Your task to perform on an android device: Go to location settings Image 0: 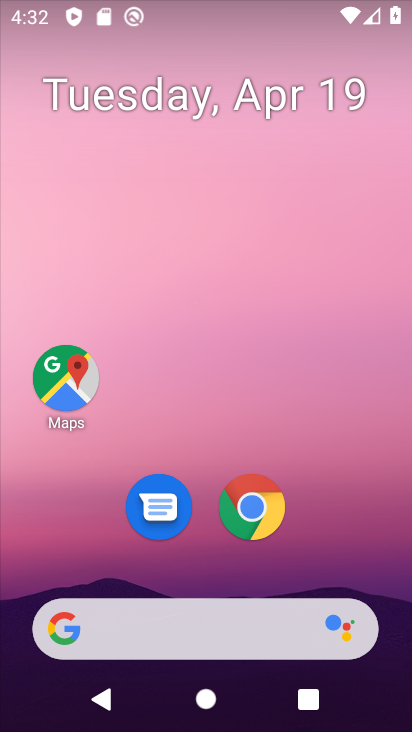
Step 0: drag from (337, 531) to (316, 49)
Your task to perform on an android device: Go to location settings Image 1: 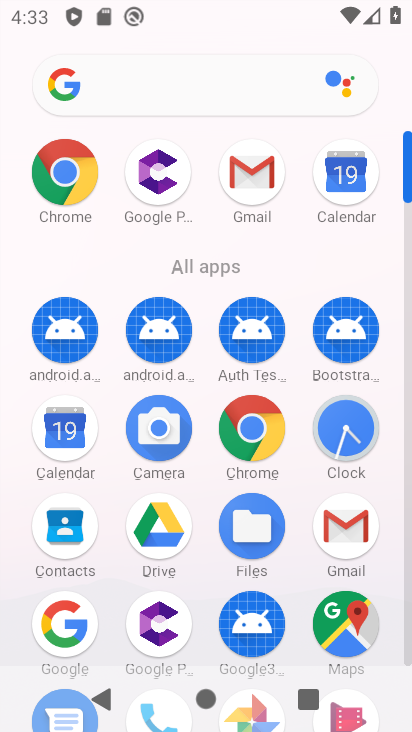
Step 1: drag from (188, 559) to (213, 218)
Your task to perform on an android device: Go to location settings Image 2: 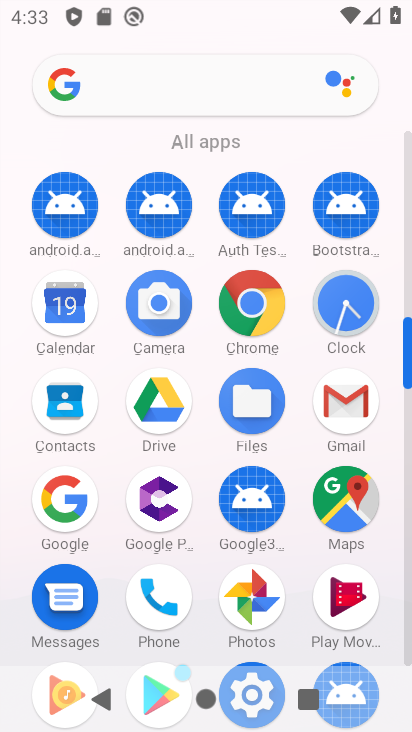
Step 2: drag from (294, 609) to (278, 285)
Your task to perform on an android device: Go to location settings Image 3: 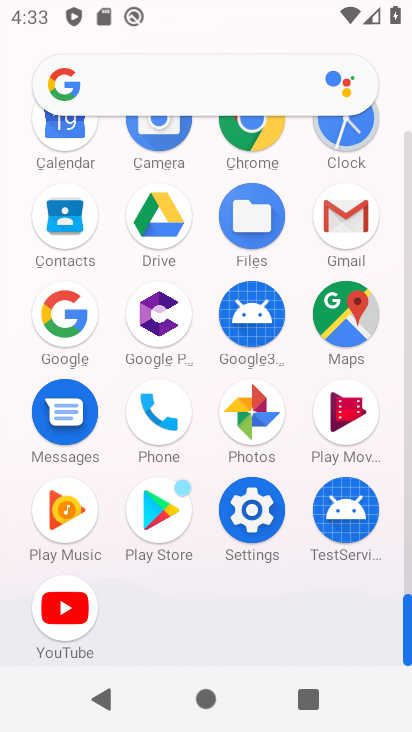
Step 3: click (252, 512)
Your task to perform on an android device: Go to location settings Image 4: 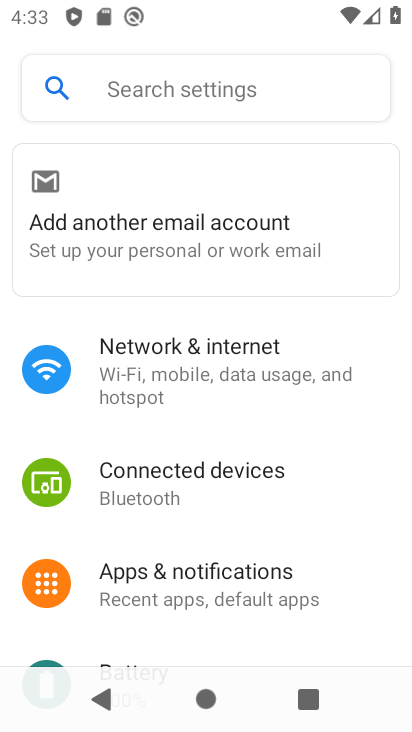
Step 4: drag from (223, 549) to (274, 216)
Your task to perform on an android device: Go to location settings Image 5: 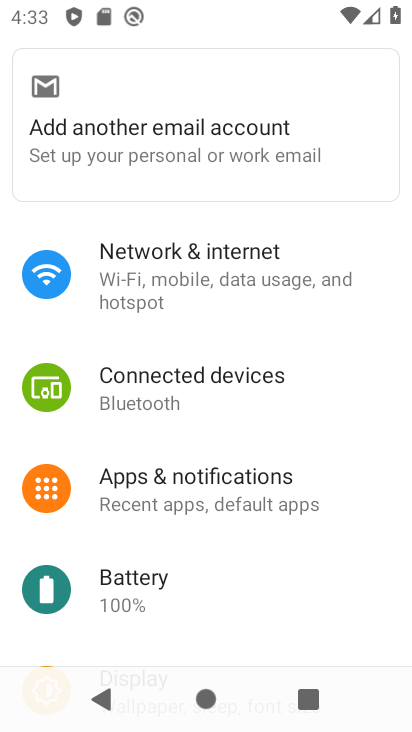
Step 5: click (264, 94)
Your task to perform on an android device: Go to location settings Image 6: 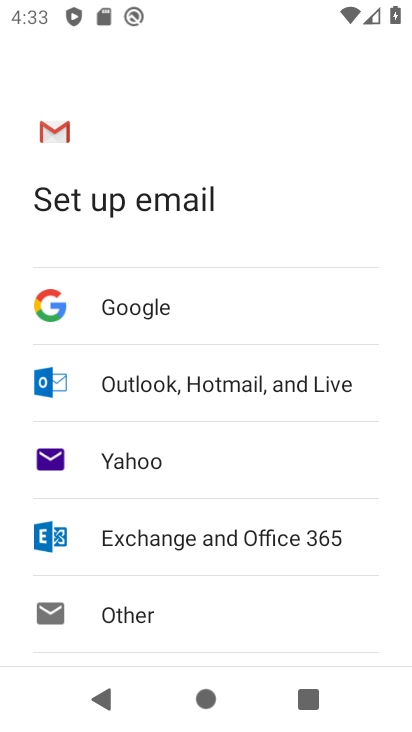
Step 6: drag from (273, 562) to (297, 166)
Your task to perform on an android device: Go to location settings Image 7: 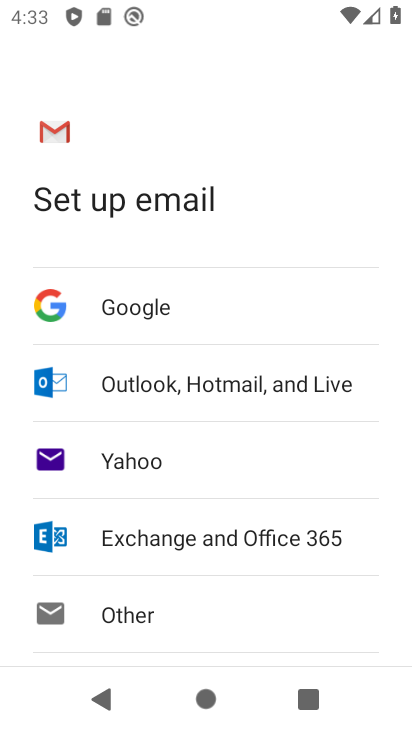
Step 7: press home button
Your task to perform on an android device: Go to location settings Image 8: 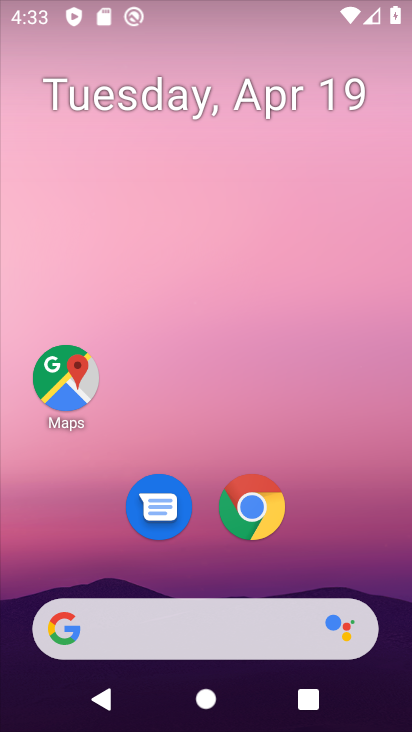
Step 8: drag from (289, 543) to (269, 33)
Your task to perform on an android device: Go to location settings Image 9: 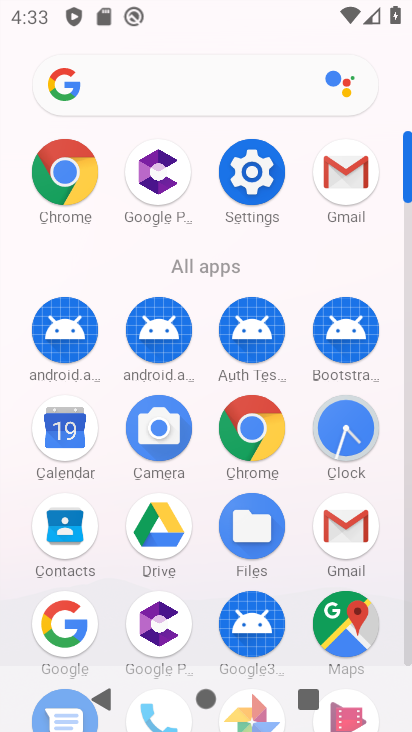
Step 9: click (253, 161)
Your task to perform on an android device: Go to location settings Image 10: 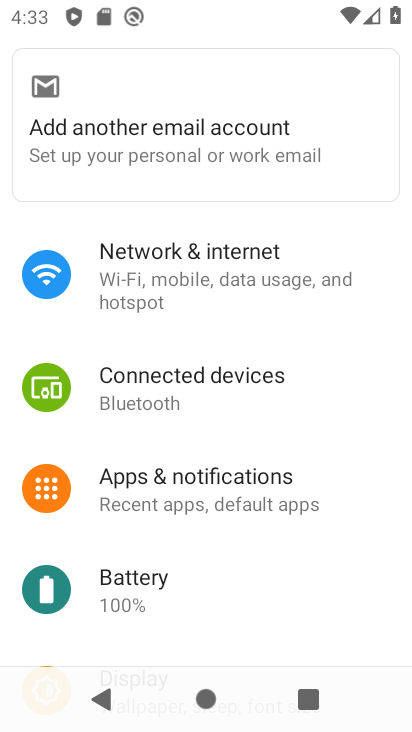
Step 10: drag from (204, 509) to (242, 116)
Your task to perform on an android device: Go to location settings Image 11: 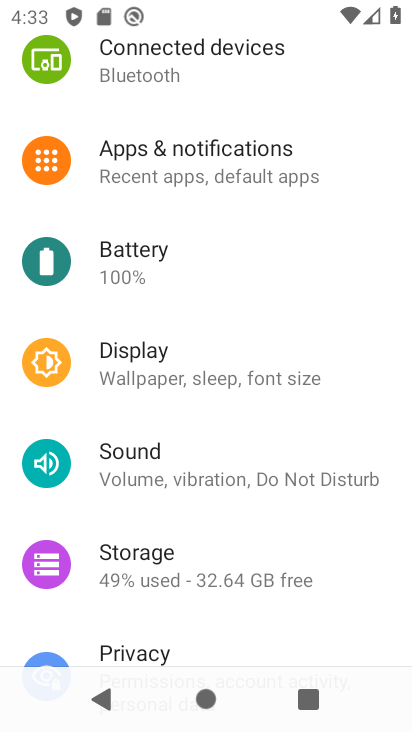
Step 11: drag from (225, 399) to (251, 105)
Your task to perform on an android device: Go to location settings Image 12: 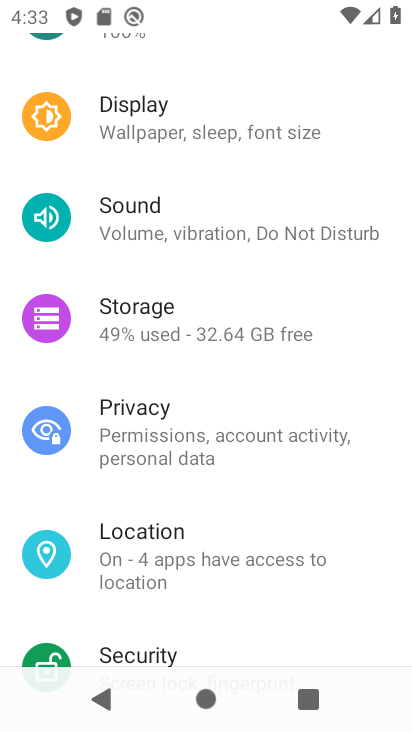
Step 12: click (185, 530)
Your task to perform on an android device: Go to location settings Image 13: 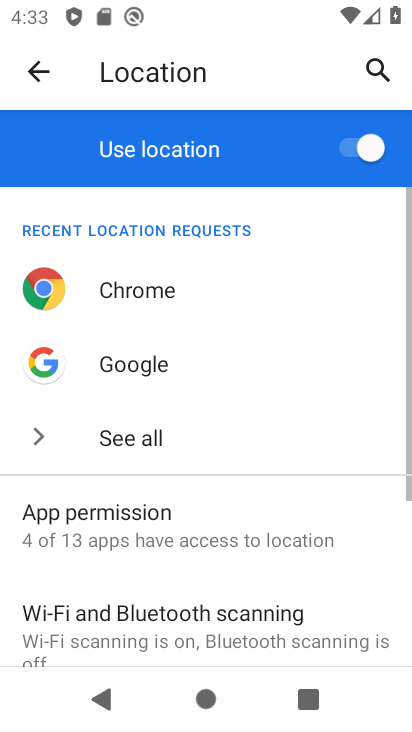
Step 13: task complete